Your task to perform on an android device: uninstall "Gboard" Image 0: 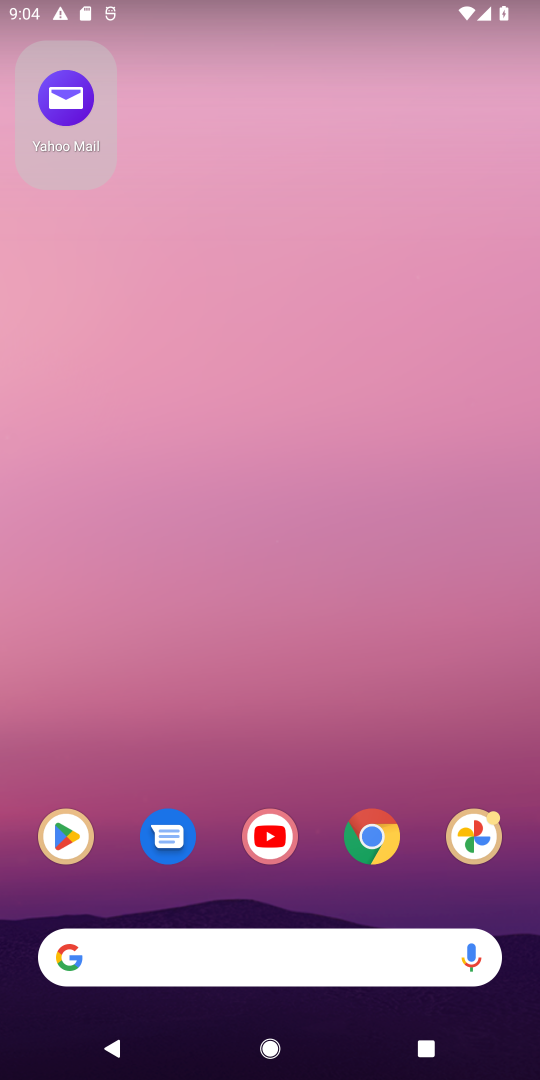
Step 0: drag from (329, 784) to (134, 106)
Your task to perform on an android device: uninstall "Gboard" Image 1: 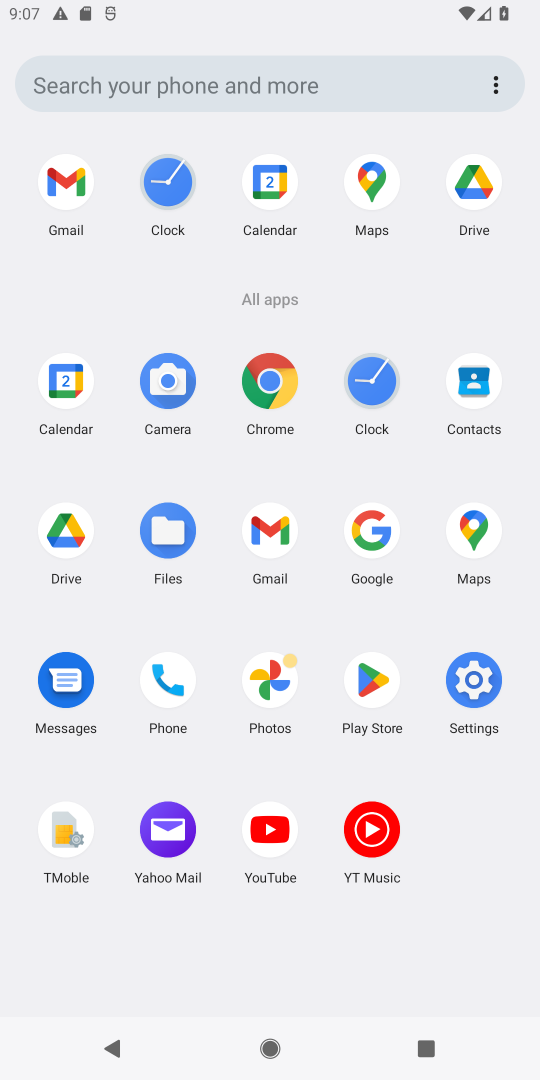
Step 1: click (379, 712)
Your task to perform on an android device: uninstall "Gboard" Image 2: 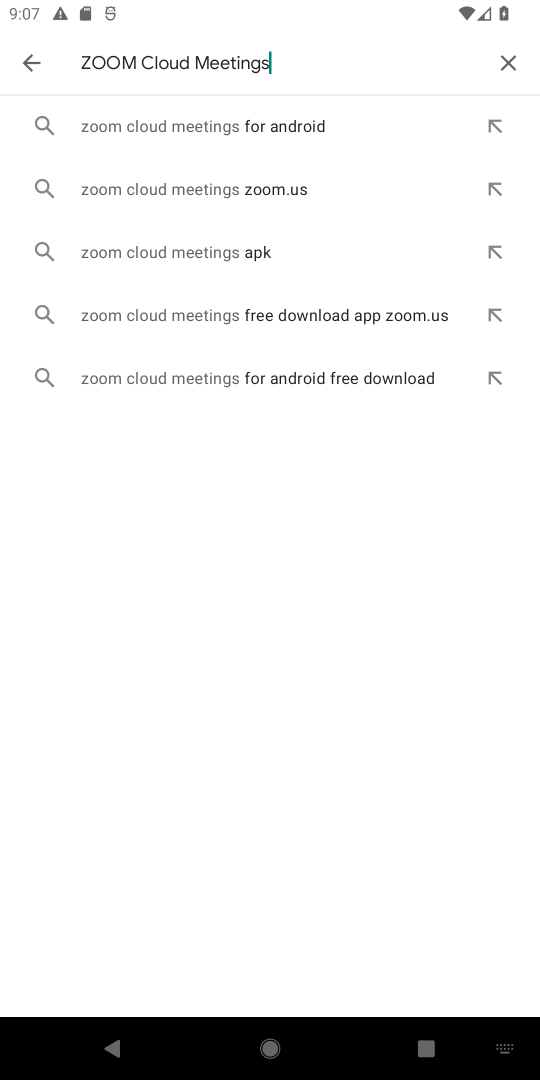
Step 2: press back button
Your task to perform on an android device: uninstall "Gboard" Image 3: 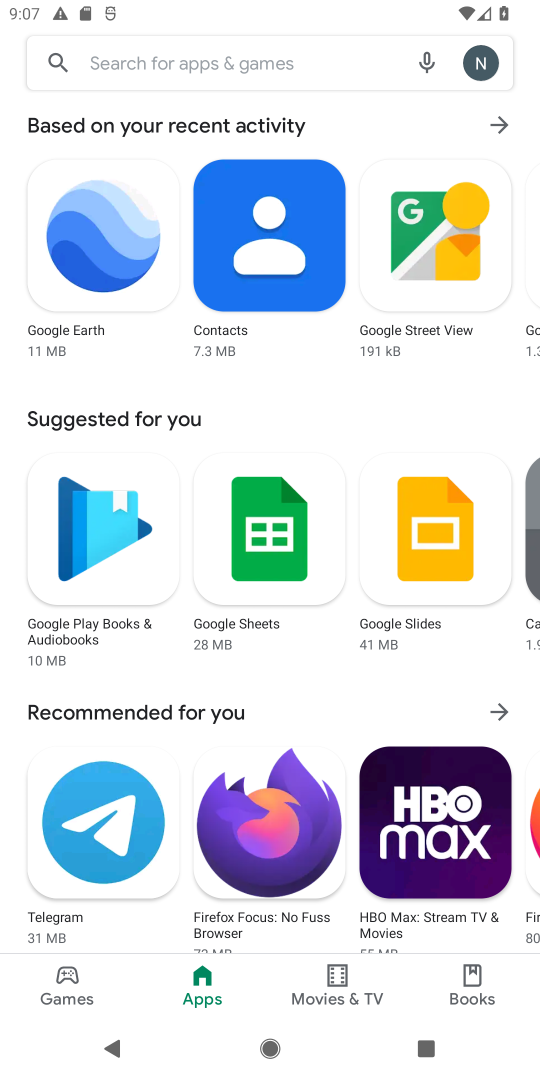
Step 3: click (182, 62)
Your task to perform on an android device: uninstall "Gboard" Image 4: 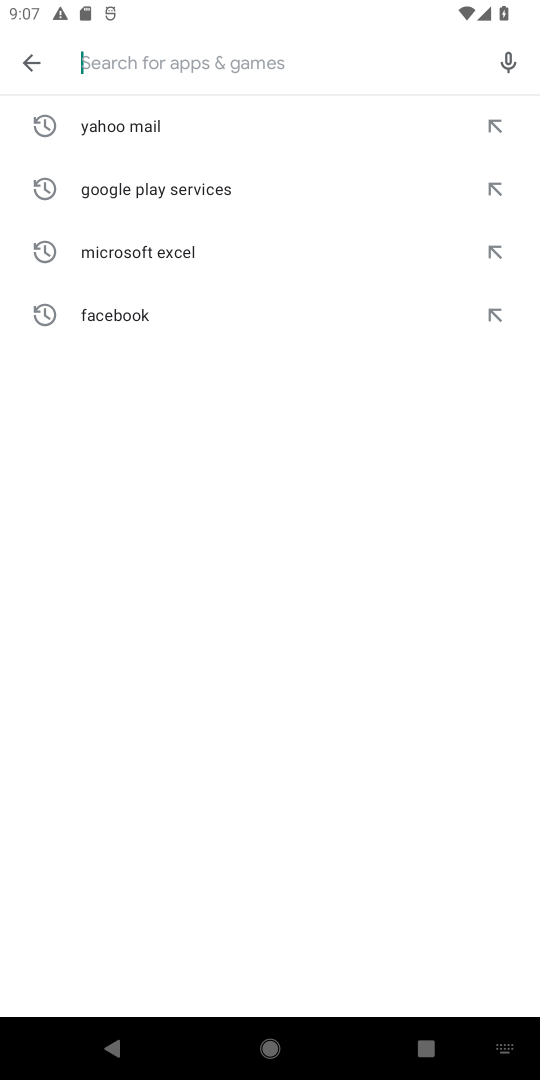
Step 4: type "Gboard"
Your task to perform on an android device: uninstall "Gboard" Image 5: 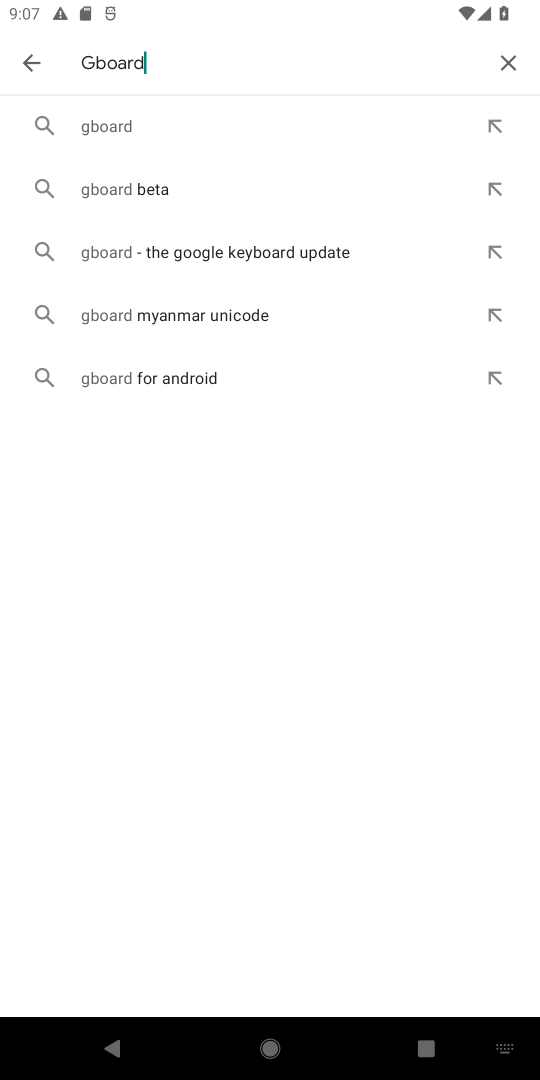
Step 5: click (101, 126)
Your task to perform on an android device: uninstall "Gboard" Image 6: 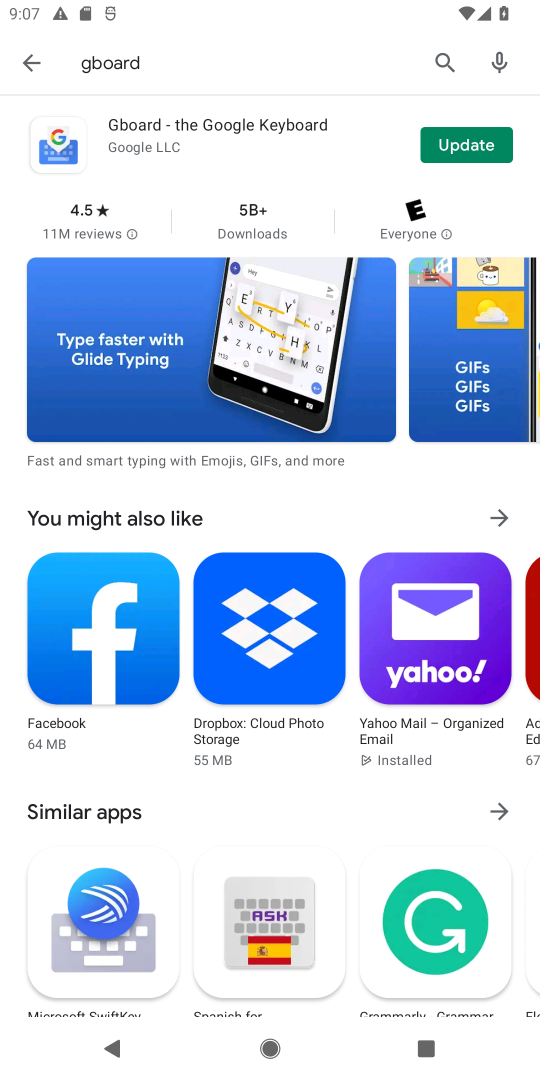
Step 6: task complete